Your task to perform on an android device: allow cookies in the chrome app Image 0: 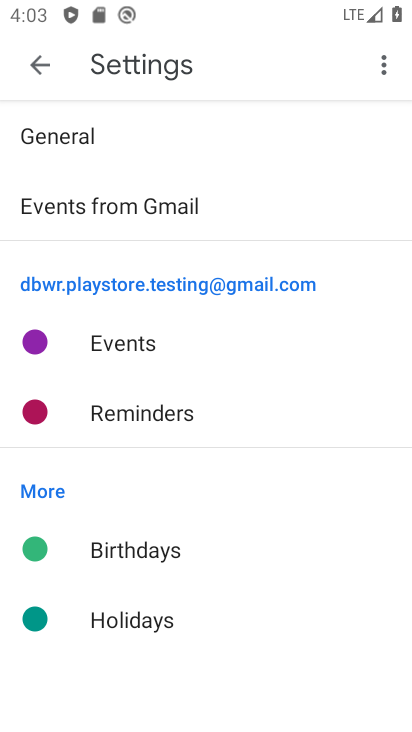
Step 0: press home button
Your task to perform on an android device: allow cookies in the chrome app Image 1: 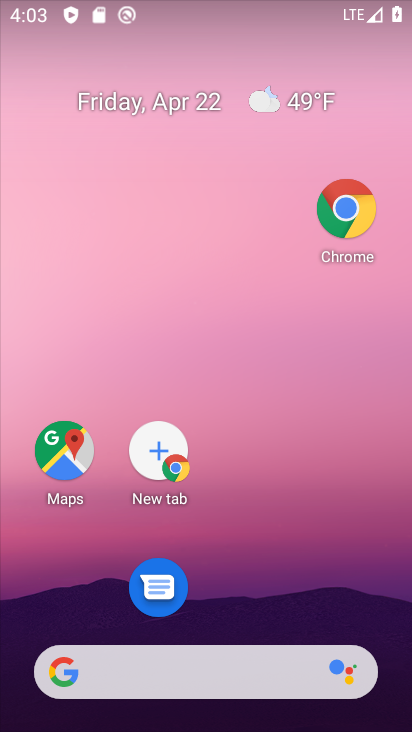
Step 1: drag from (278, 556) to (196, 157)
Your task to perform on an android device: allow cookies in the chrome app Image 2: 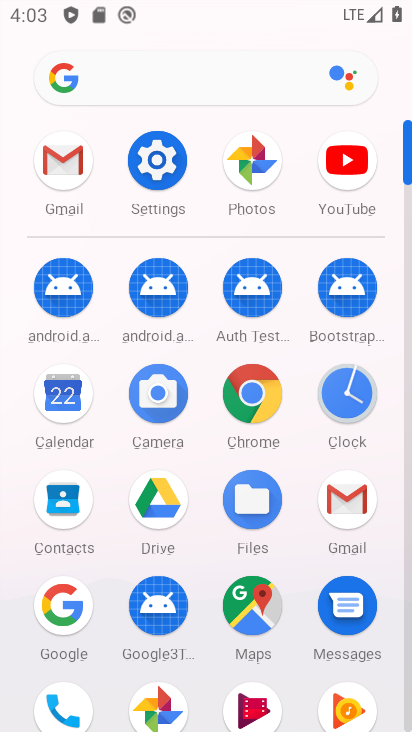
Step 2: click (266, 385)
Your task to perform on an android device: allow cookies in the chrome app Image 3: 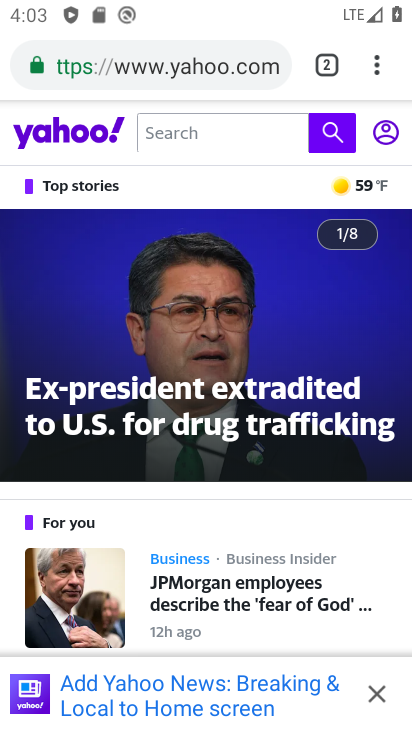
Step 3: click (372, 71)
Your task to perform on an android device: allow cookies in the chrome app Image 4: 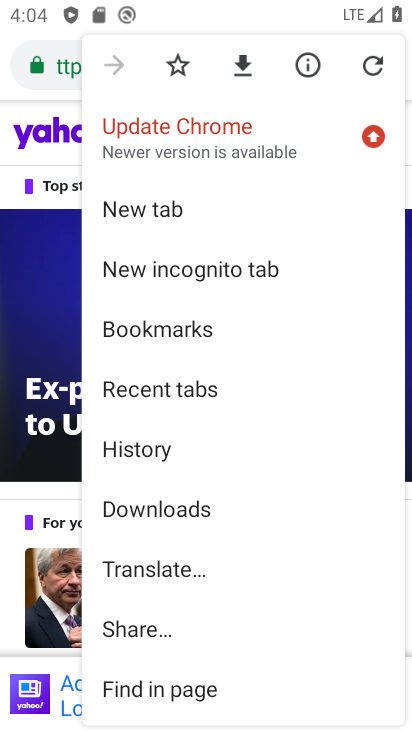
Step 4: drag from (158, 636) to (194, 305)
Your task to perform on an android device: allow cookies in the chrome app Image 5: 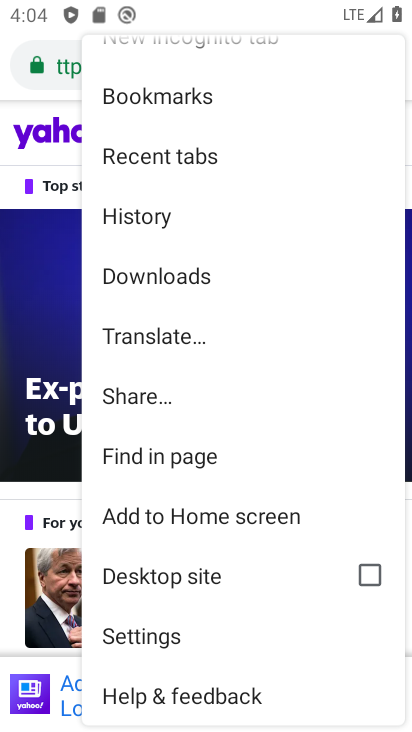
Step 5: click (165, 648)
Your task to perform on an android device: allow cookies in the chrome app Image 6: 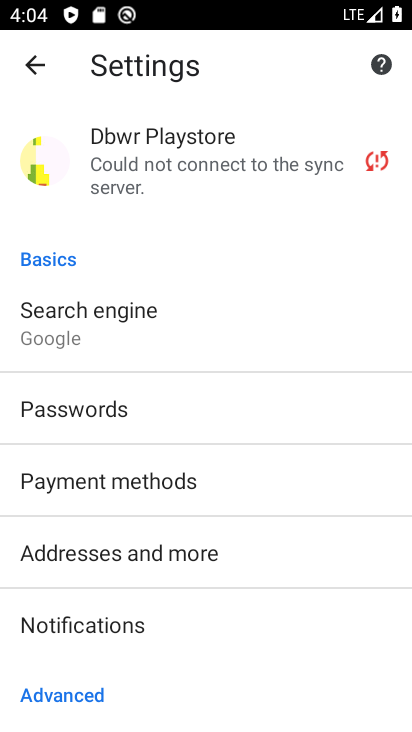
Step 6: drag from (118, 669) to (146, 362)
Your task to perform on an android device: allow cookies in the chrome app Image 7: 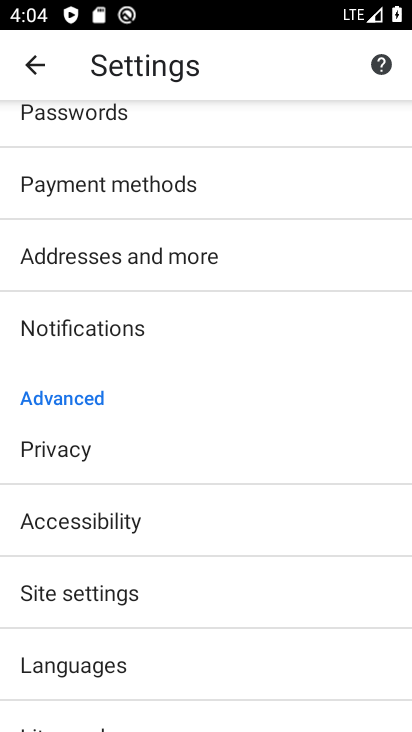
Step 7: click (118, 610)
Your task to perform on an android device: allow cookies in the chrome app Image 8: 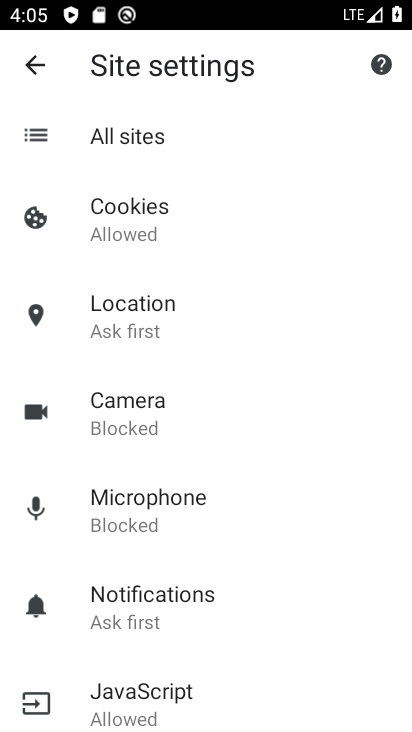
Step 8: drag from (187, 646) to (204, 603)
Your task to perform on an android device: allow cookies in the chrome app Image 9: 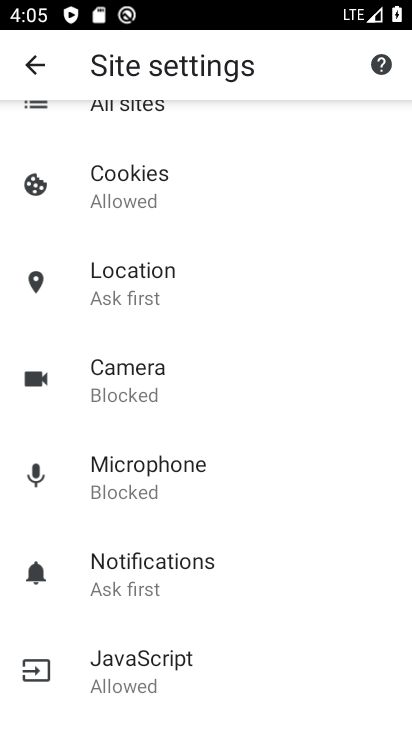
Step 9: click (197, 212)
Your task to perform on an android device: allow cookies in the chrome app Image 10: 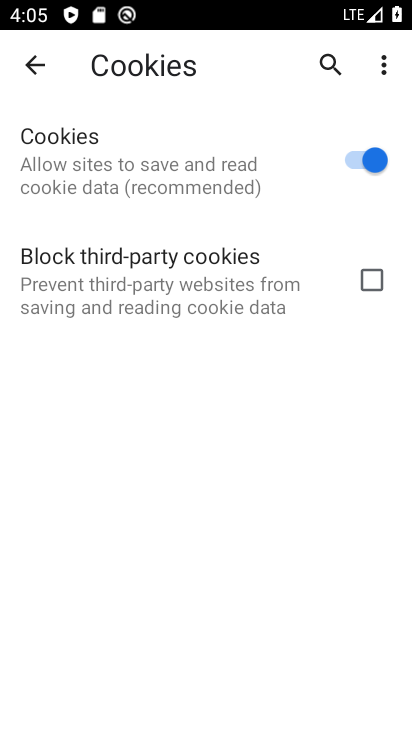
Step 10: task complete